Your task to perform on an android device: open app "Roku - Official Remote Control" (install if not already installed) Image 0: 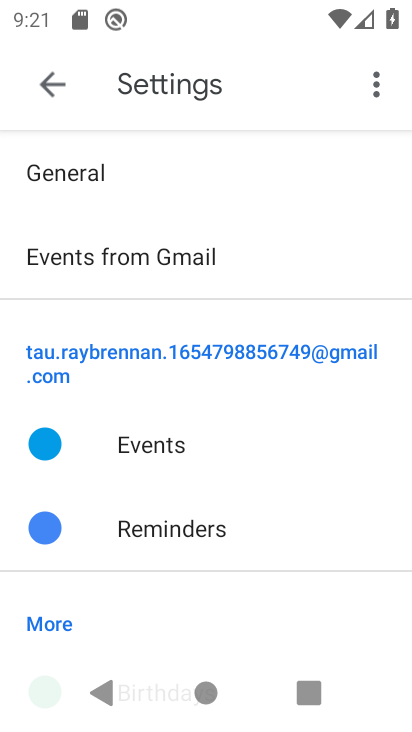
Step 0: press home button
Your task to perform on an android device: open app "Roku - Official Remote Control" (install if not already installed) Image 1: 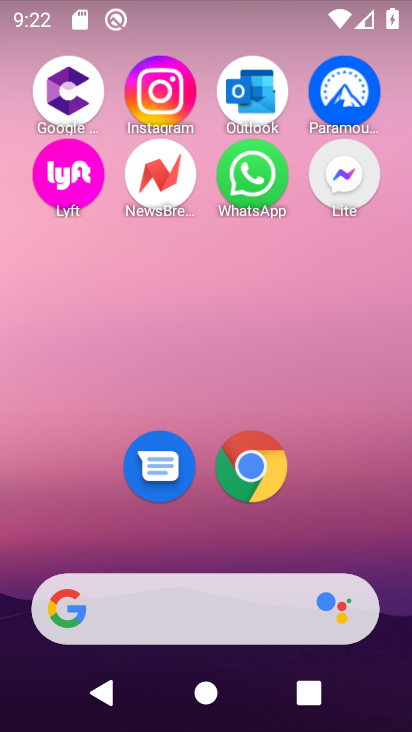
Step 1: drag from (228, 636) to (199, 119)
Your task to perform on an android device: open app "Roku - Official Remote Control" (install if not already installed) Image 2: 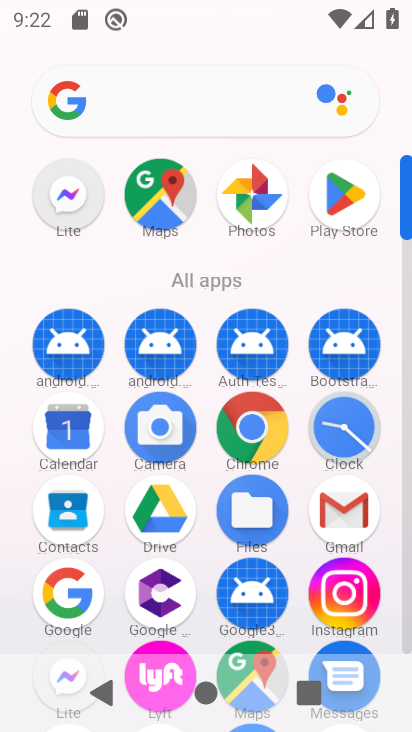
Step 2: click (340, 203)
Your task to perform on an android device: open app "Roku - Official Remote Control" (install if not already installed) Image 3: 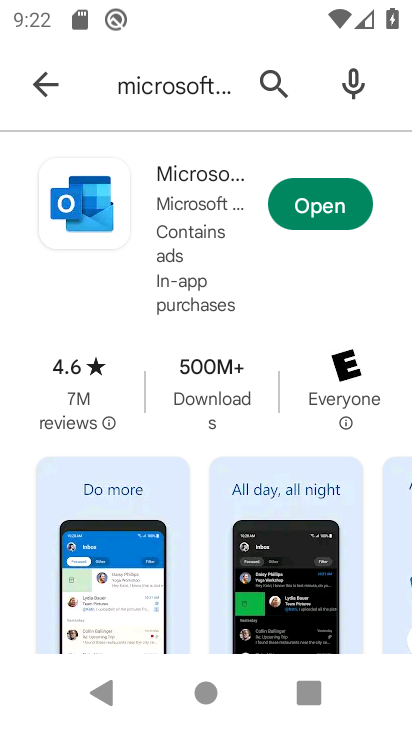
Step 3: click (270, 79)
Your task to perform on an android device: open app "Roku - Official Remote Control" (install if not already installed) Image 4: 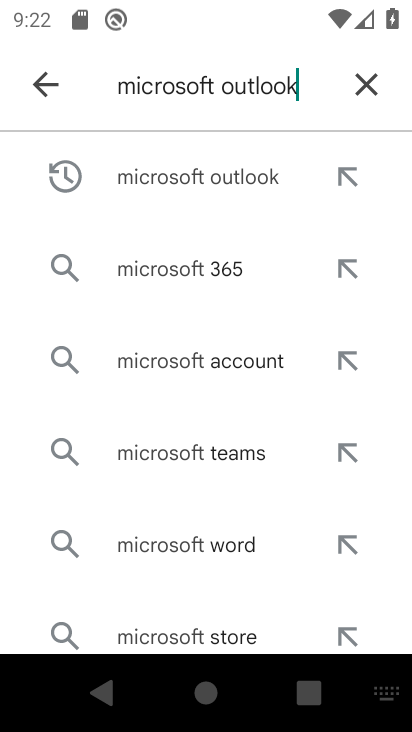
Step 4: click (367, 78)
Your task to perform on an android device: open app "Roku - Official Remote Control" (install if not already installed) Image 5: 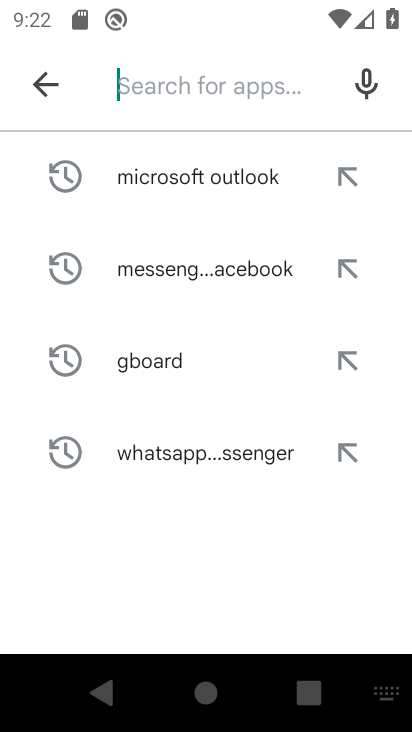
Step 5: type "Roku - Official Remote Control"
Your task to perform on an android device: open app "Roku - Official Remote Control" (install if not already installed) Image 6: 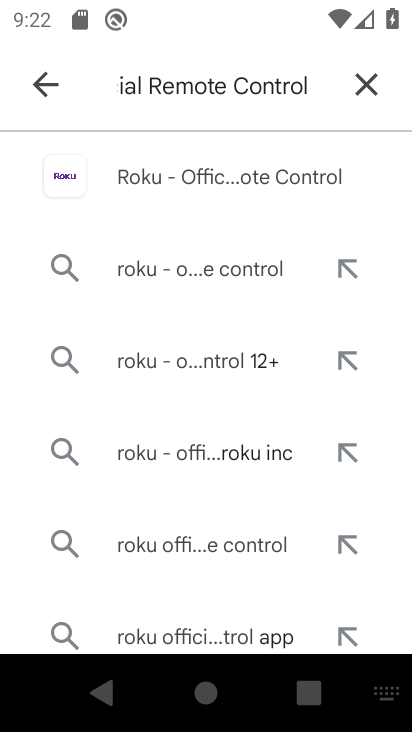
Step 6: click (275, 178)
Your task to perform on an android device: open app "Roku - Official Remote Control" (install if not already installed) Image 7: 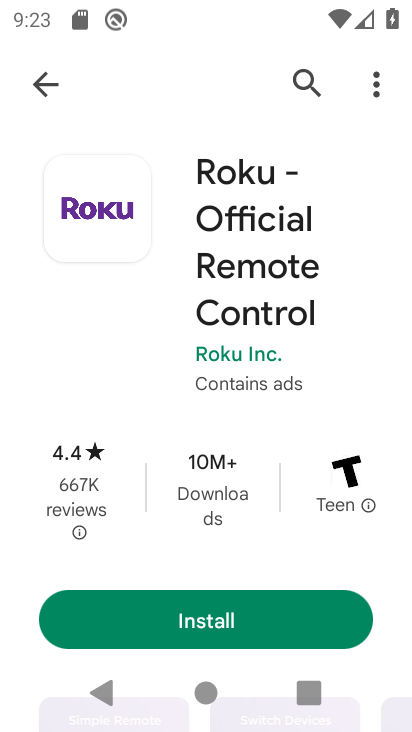
Step 7: click (220, 621)
Your task to perform on an android device: open app "Roku - Official Remote Control" (install if not already installed) Image 8: 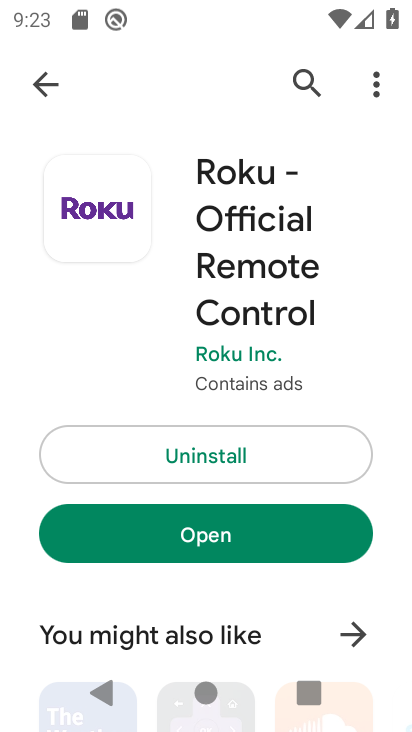
Step 8: task complete